Your task to perform on an android device: clear all cookies in the chrome app Image 0: 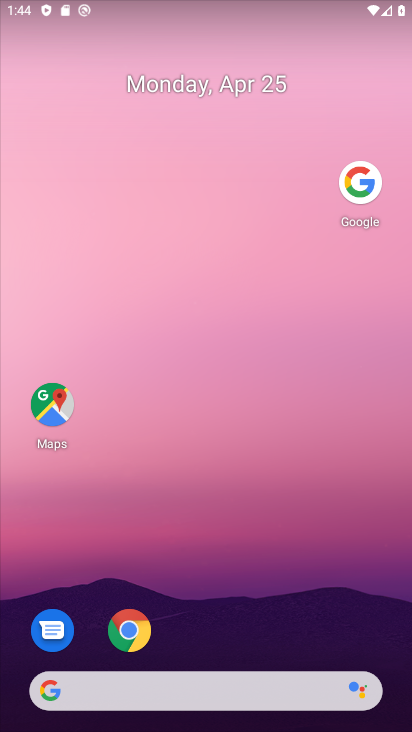
Step 0: drag from (196, 657) to (274, 12)
Your task to perform on an android device: clear all cookies in the chrome app Image 1: 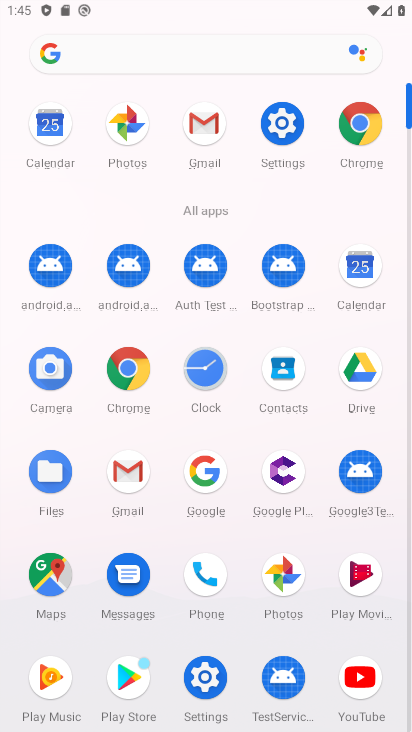
Step 1: click (357, 122)
Your task to perform on an android device: clear all cookies in the chrome app Image 2: 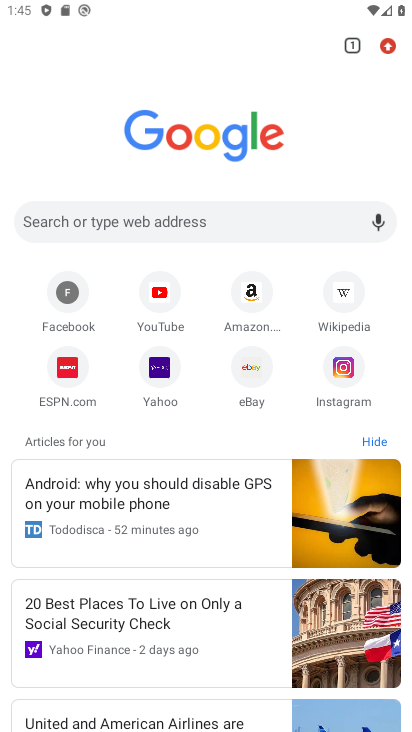
Step 2: click (391, 44)
Your task to perform on an android device: clear all cookies in the chrome app Image 3: 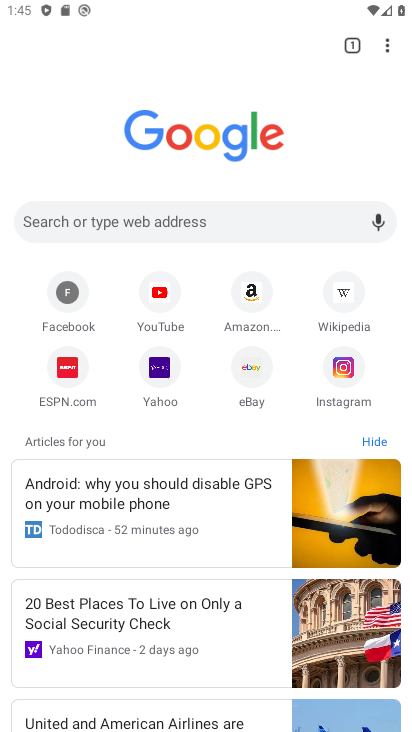
Step 3: drag from (388, 45) to (243, 315)
Your task to perform on an android device: clear all cookies in the chrome app Image 4: 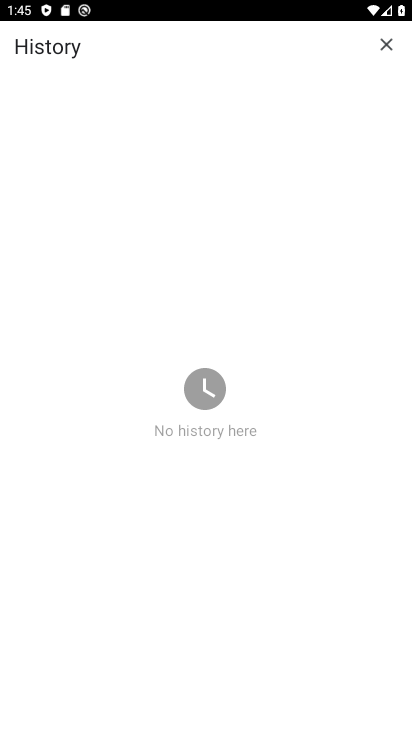
Step 4: click (383, 36)
Your task to perform on an android device: clear all cookies in the chrome app Image 5: 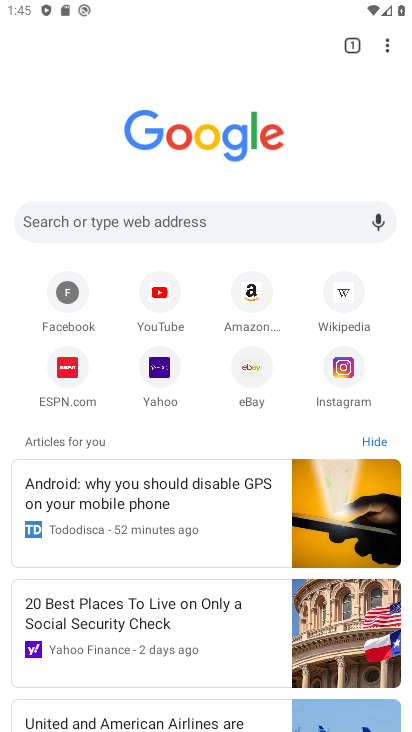
Step 5: drag from (382, 41) to (237, 435)
Your task to perform on an android device: clear all cookies in the chrome app Image 6: 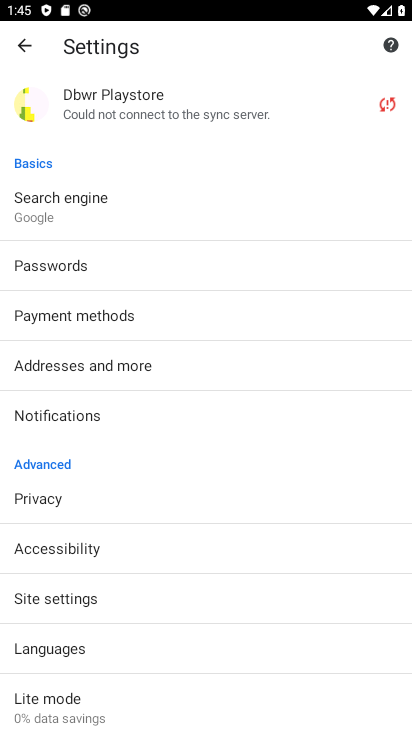
Step 6: click (63, 502)
Your task to perform on an android device: clear all cookies in the chrome app Image 7: 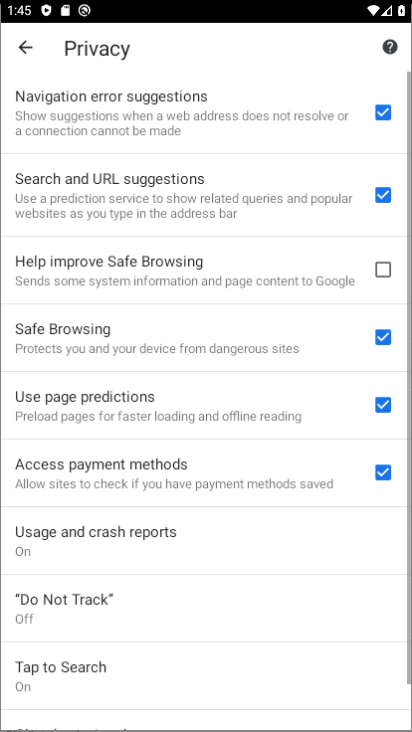
Step 7: drag from (147, 635) to (153, 0)
Your task to perform on an android device: clear all cookies in the chrome app Image 8: 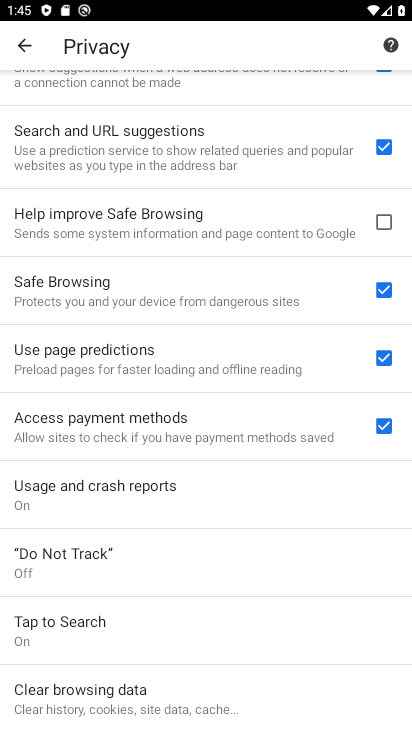
Step 8: click (98, 705)
Your task to perform on an android device: clear all cookies in the chrome app Image 9: 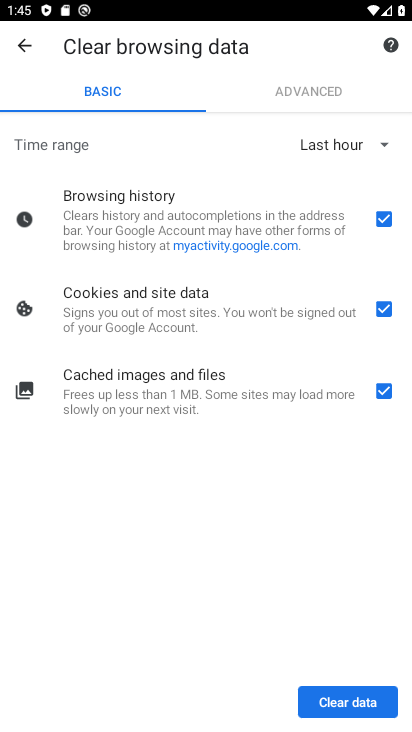
Step 9: click (348, 693)
Your task to perform on an android device: clear all cookies in the chrome app Image 10: 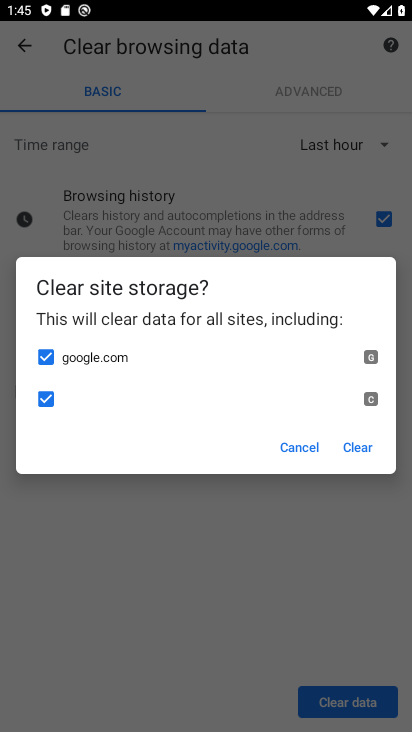
Step 10: click (360, 436)
Your task to perform on an android device: clear all cookies in the chrome app Image 11: 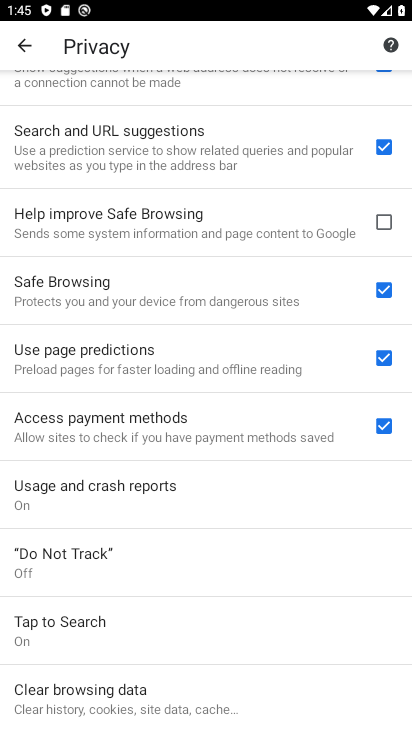
Step 11: task complete